Your task to perform on an android device: Show me recent news Image 0: 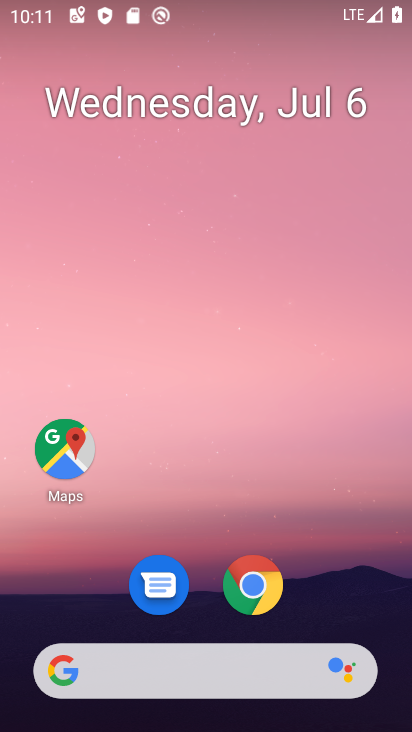
Step 0: click (211, 674)
Your task to perform on an android device: Show me recent news Image 1: 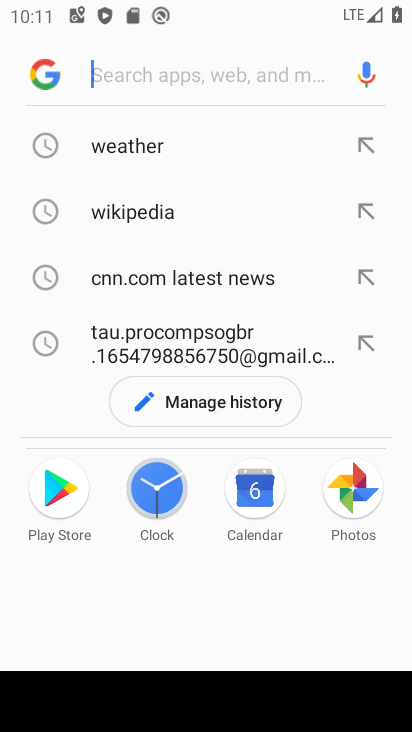
Step 1: type "recent news"
Your task to perform on an android device: Show me recent news Image 2: 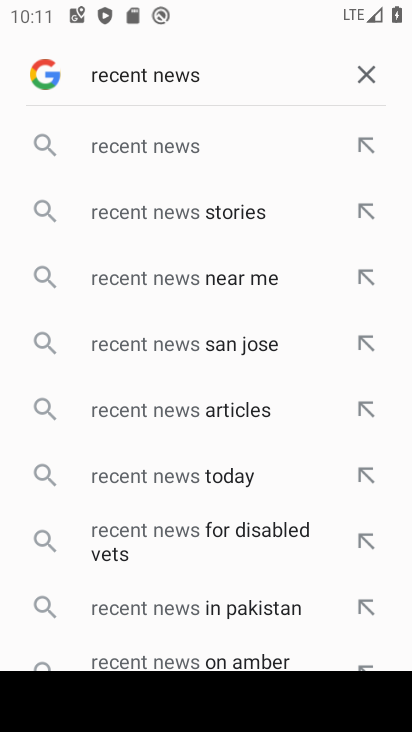
Step 2: click (160, 144)
Your task to perform on an android device: Show me recent news Image 3: 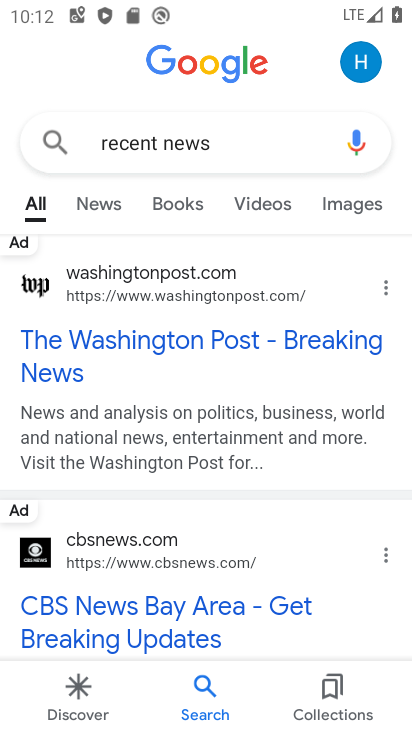
Step 3: click (102, 201)
Your task to perform on an android device: Show me recent news Image 4: 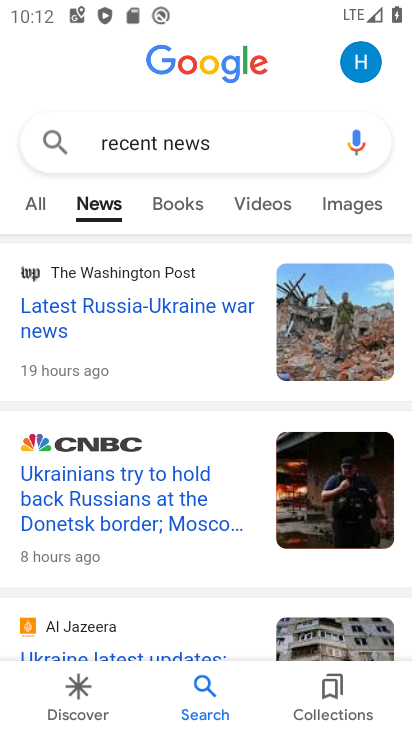
Step 4: task complete